Your task to perform on an android device: uninstall "Google Play Music" Image 0: 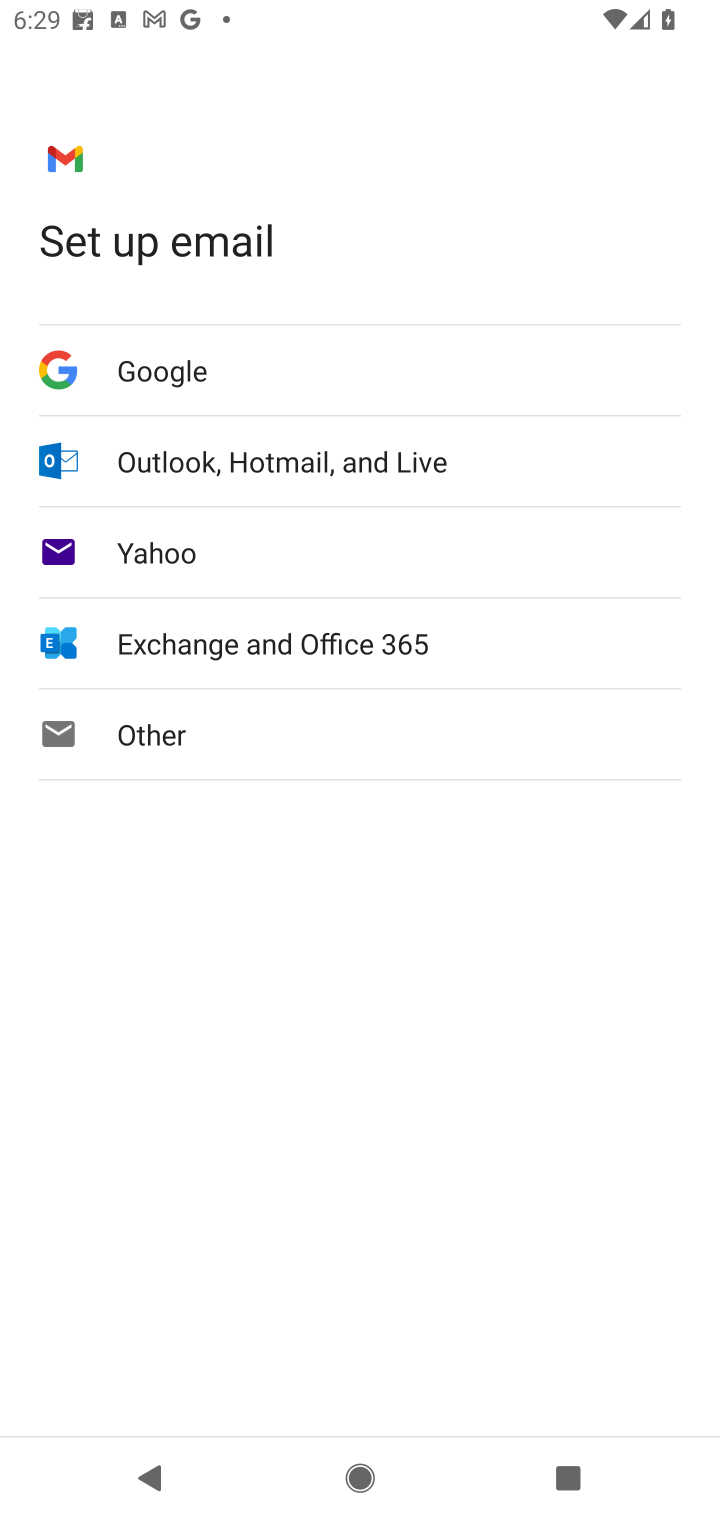
Step 0: press back button
Your task to perform on an android device: uninstall "Google Play Music" Image 1: 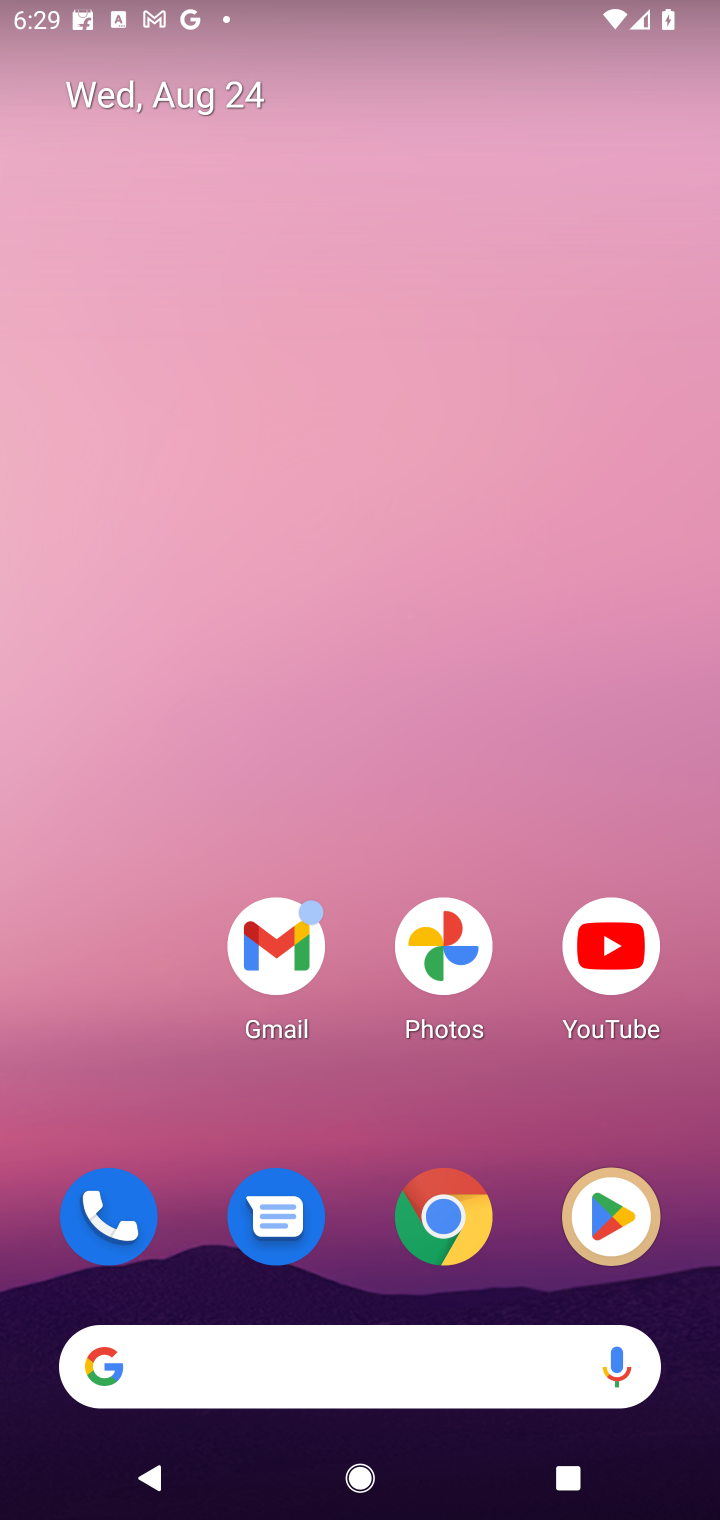
Step 1: click (579, 1218)
Your task to perform on an android device: uninstall "Google Play Music" Image 2: 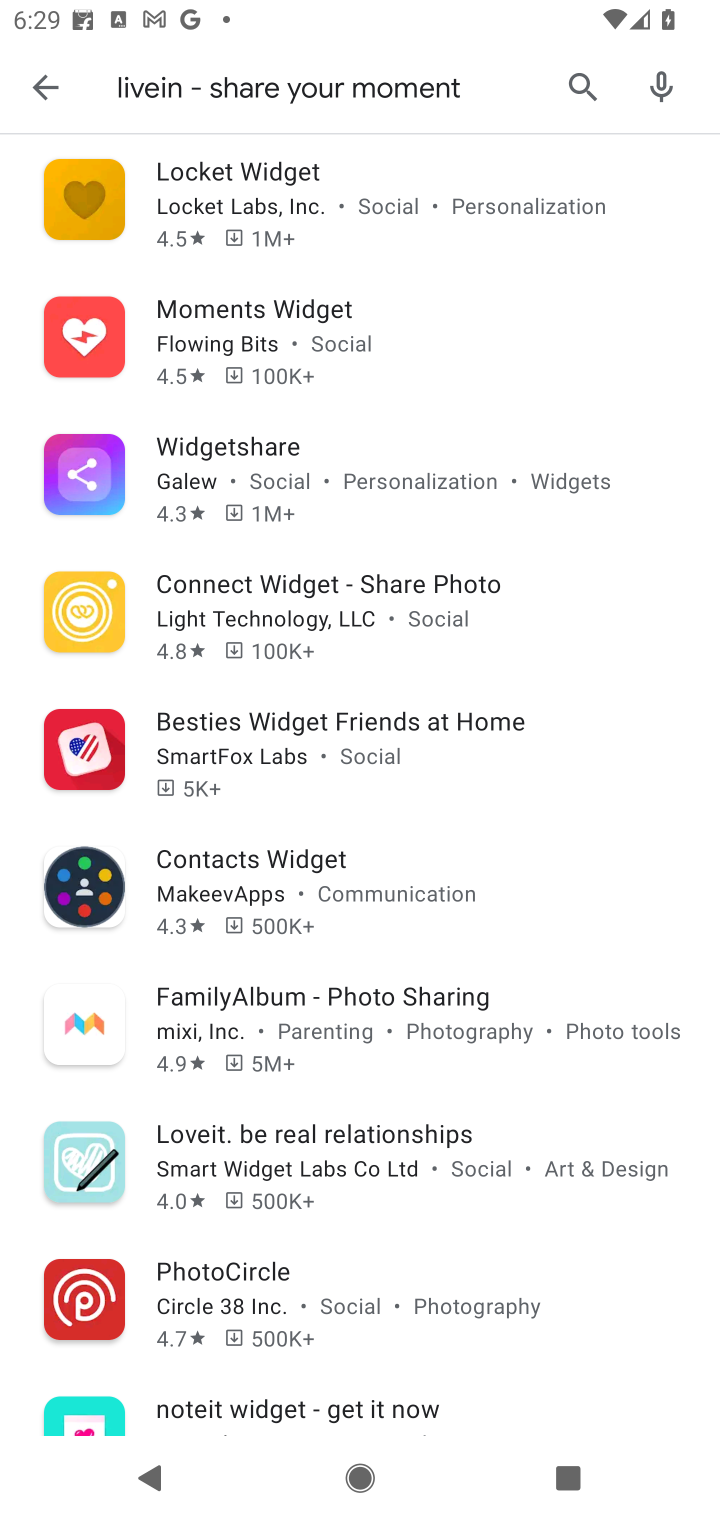
Step 2: click (588, 88)
Your task to perform on an android device: uninstall "Google Play Music" Image 3: 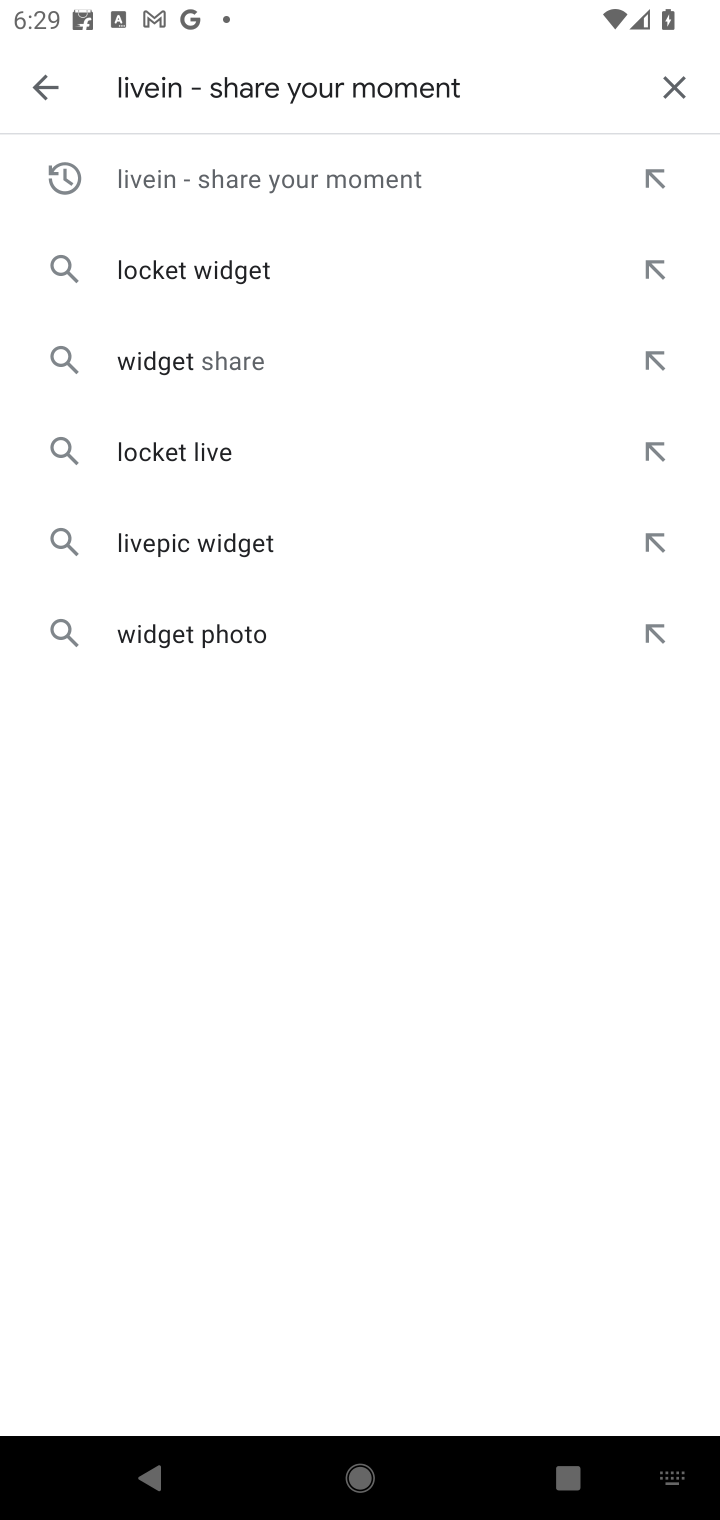
Step 3: click (667, 96)
Your task to perform on an android device: uninstall "Google Play Music" Image 4: 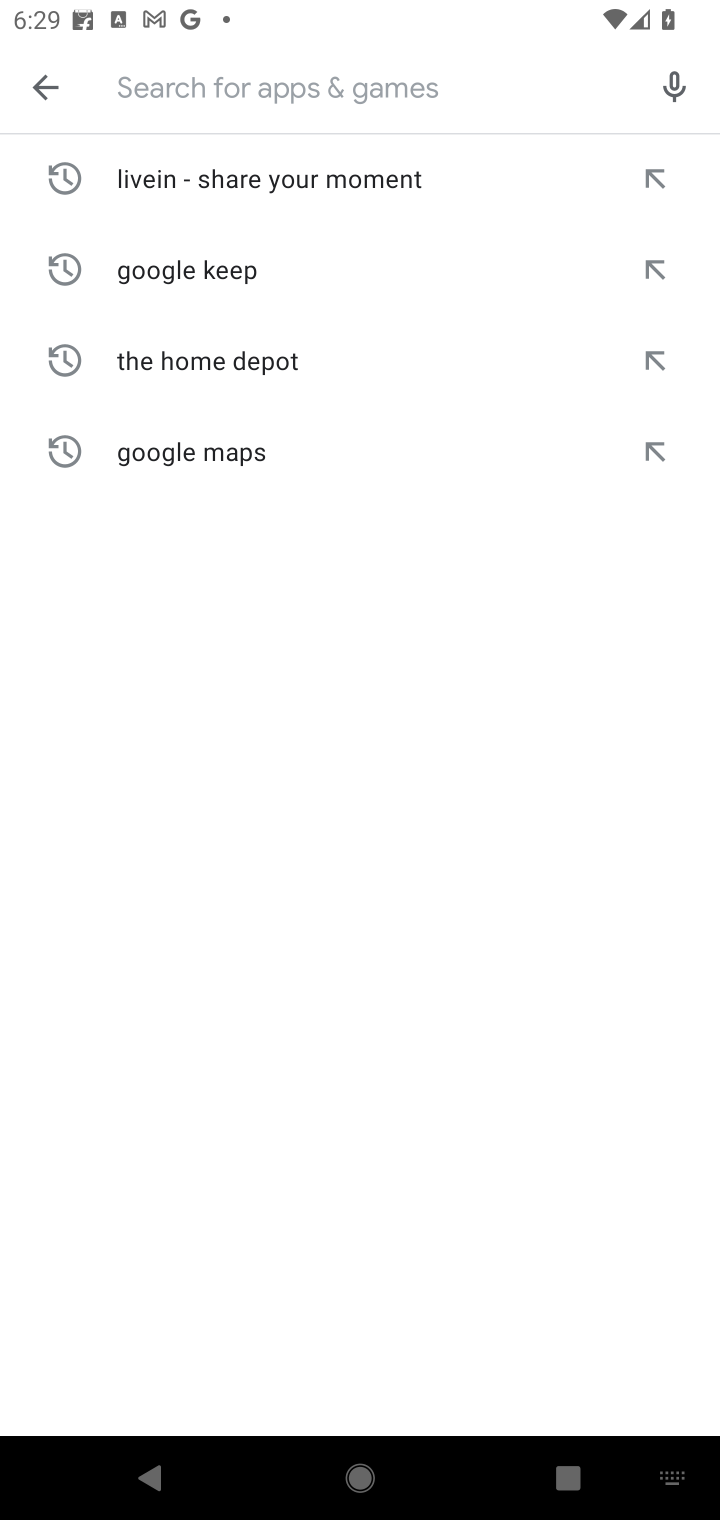
Step 4: type "Google Play Music"
Your task to perform on an android device: uninstall "Google Play Music" Image 5: 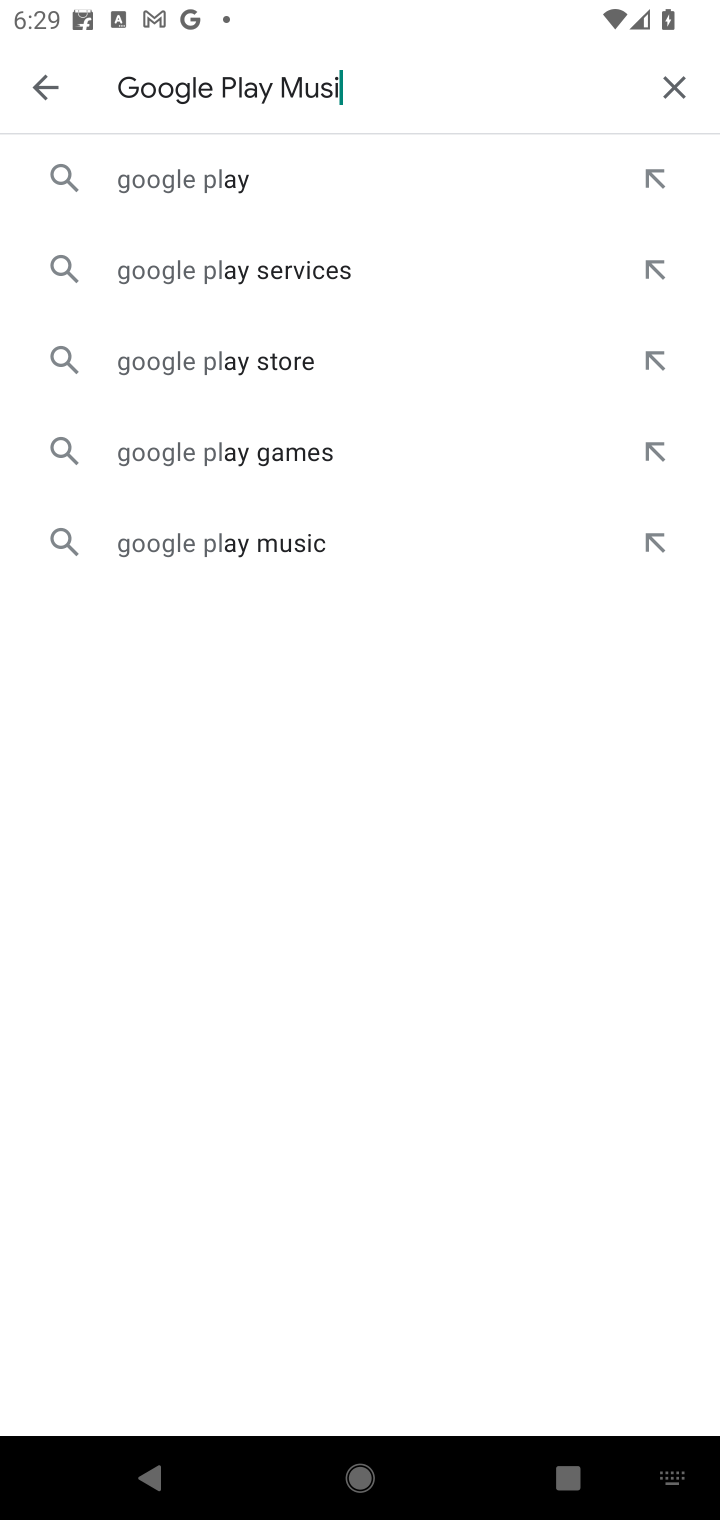
Step 5: type ""
Your task to perform on an android device: uninstall "Google Play Music" Image 6: 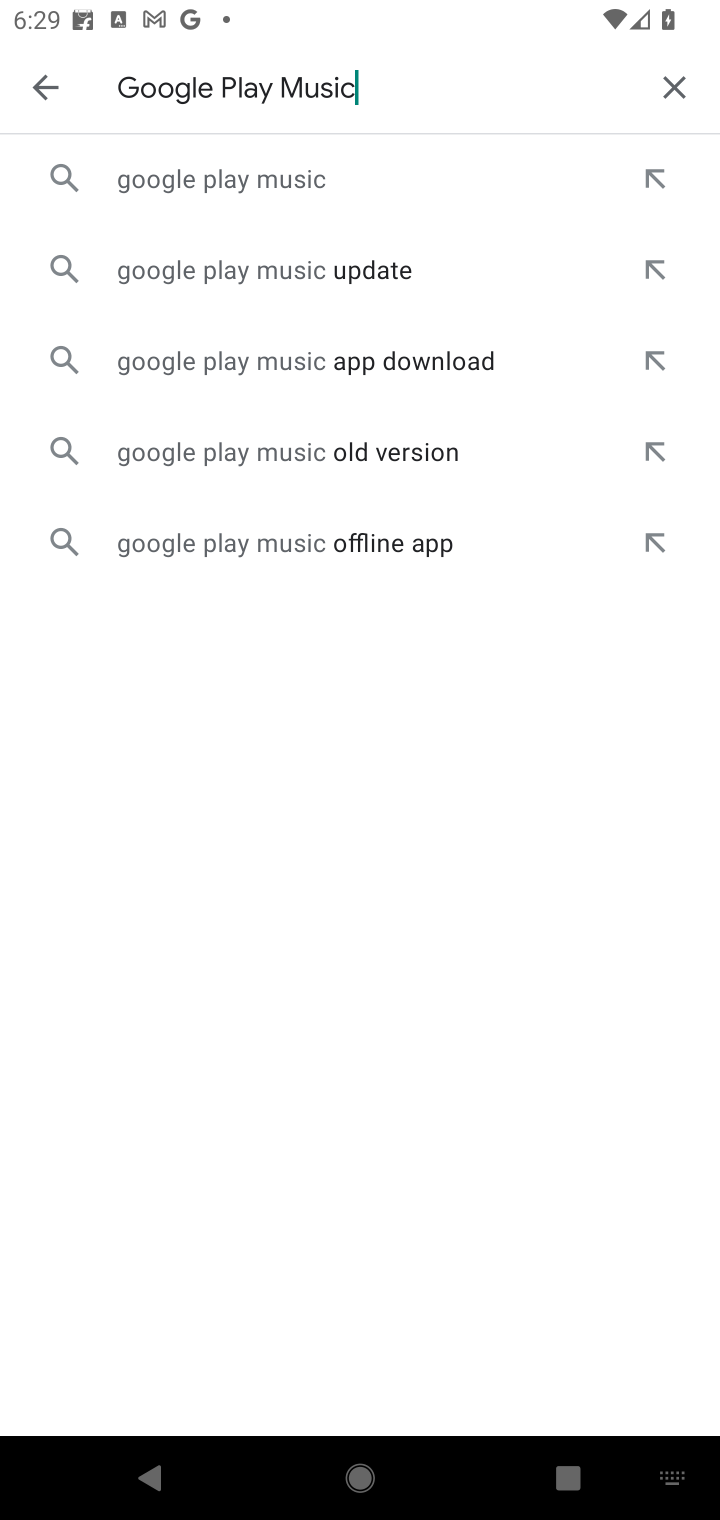
Step 6: click (282, 186)
Your task to perform on an android device: uninstall "Google Play Music" Image 7: 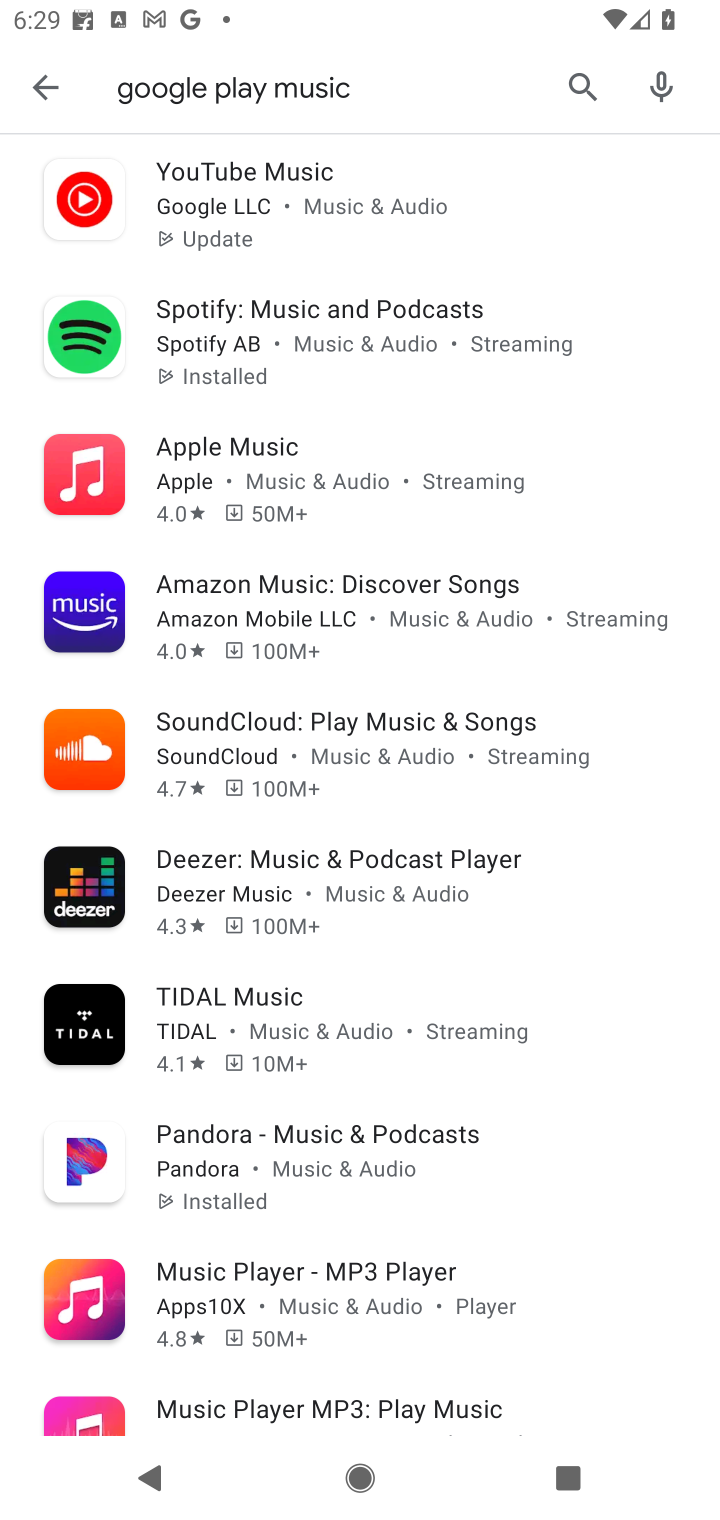
Step 7: task complete